Your task to perform on an android device: turn on the 12-hour format for clock Image 0: 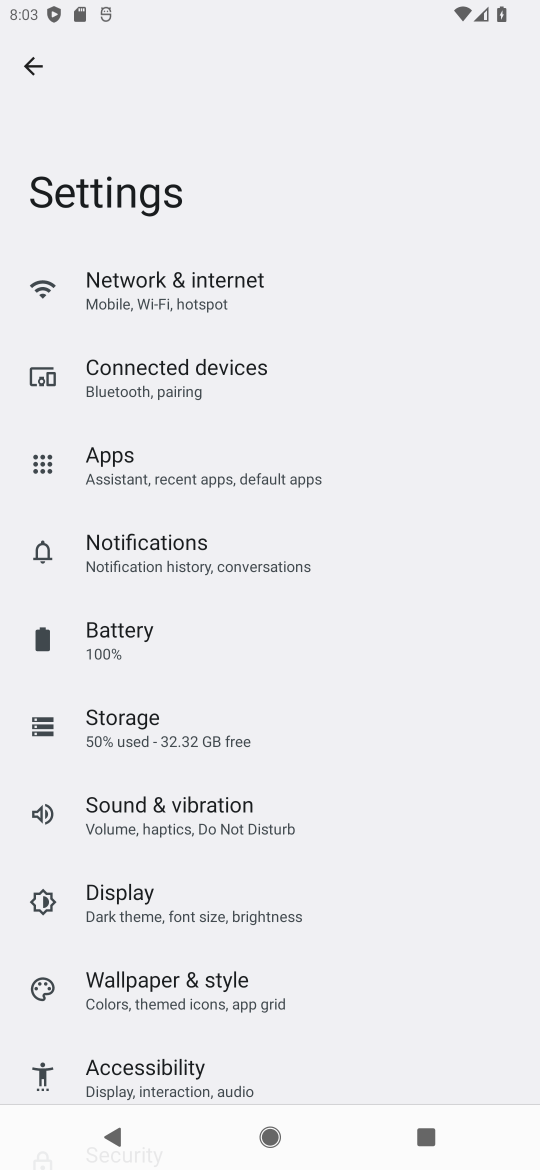
Step 0: press home button
Your task to perform on an android device: turn on the 12-hour format for clock Image 1: 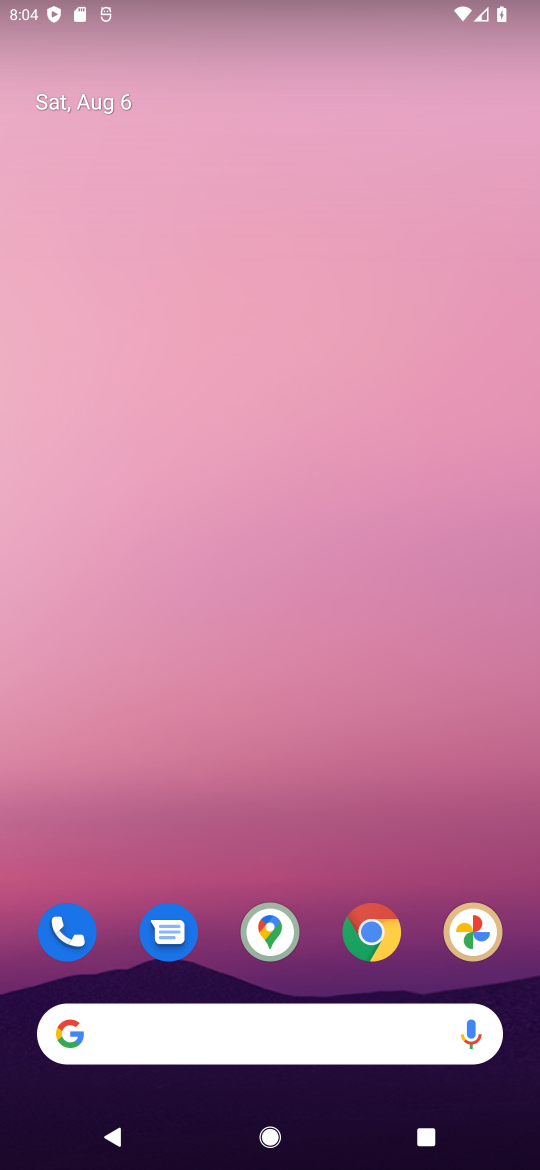
Step 1: drag from (335, 1029) to (412, 278)
Your task to perform on an android device: turn on the 12-hour format for clock Image 2: 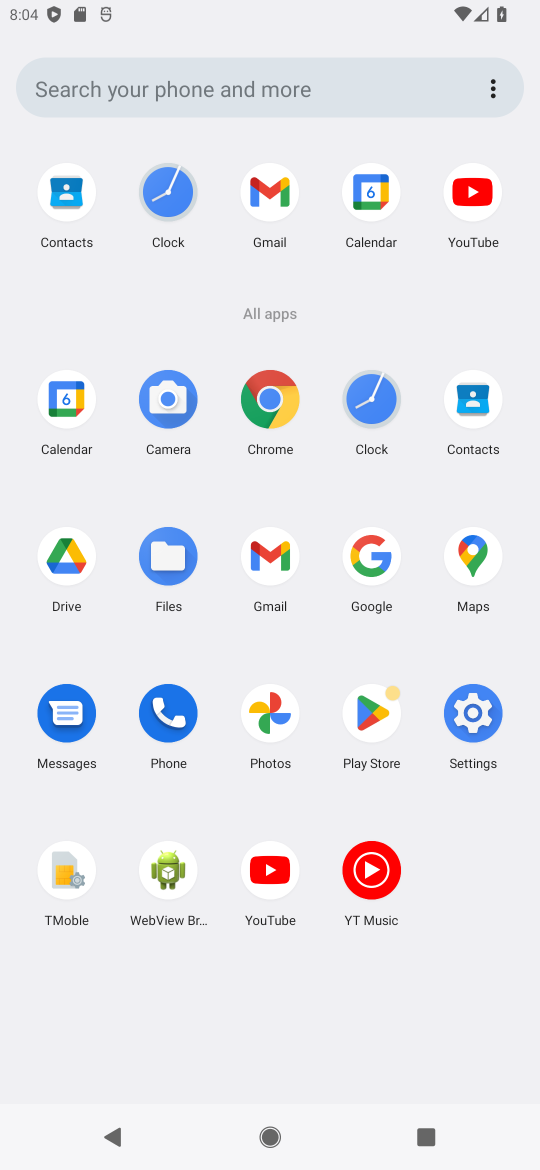
Step 2: click (168, 191)
Your task to perform on an android device: turn on the 12-hour format for clock Image 3: 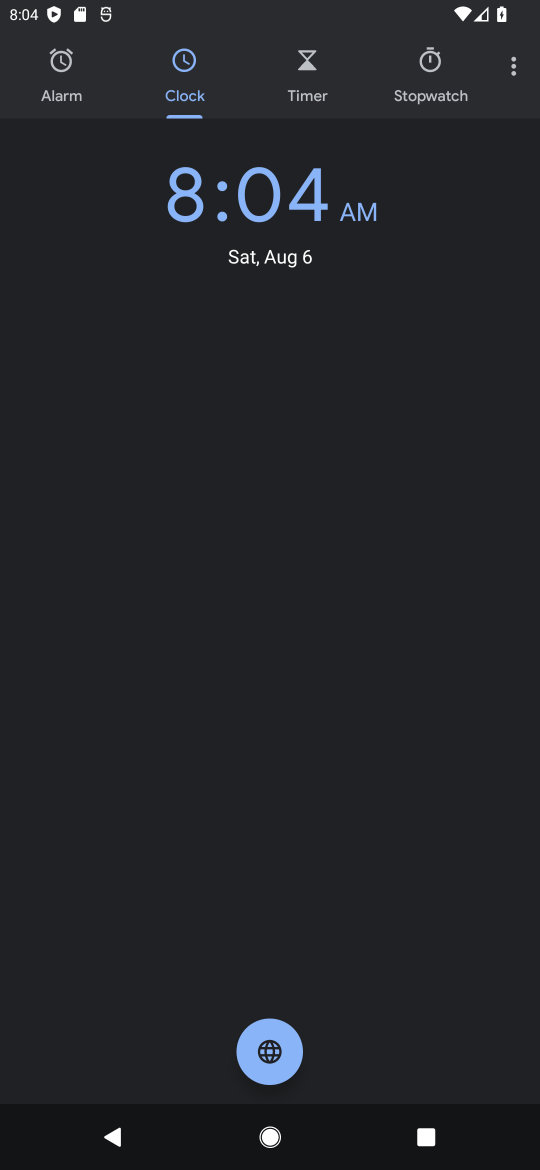
Step 3: click (515, 62)
Your task to perform on an android device: turn on the 12-hour format for clock Image 4: 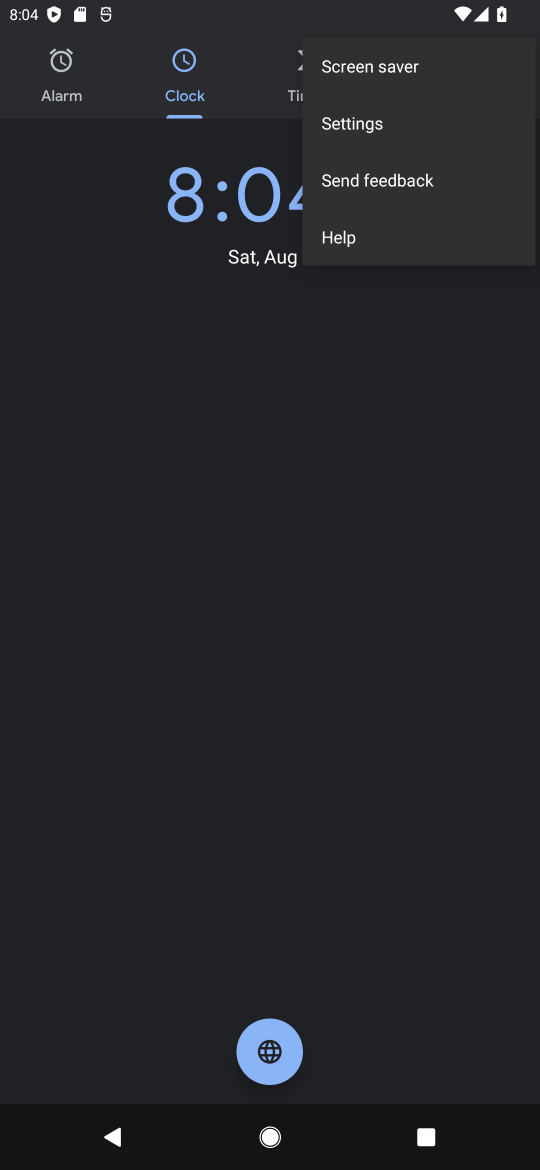
Step 4: click (384, 116)
Your task to perform on an android device: turn on the 12-hour format for clock Image 5: 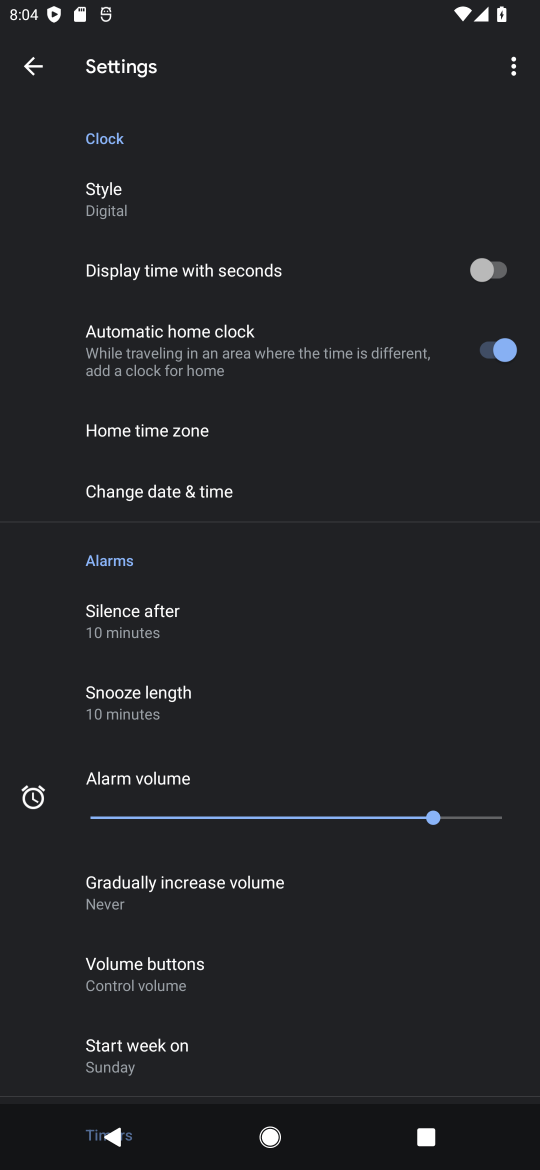
Step 5: drag from (284, 874) to (370, 541)
Your task to perform on an android device: turn on the 12-hour format for clock Image 6: 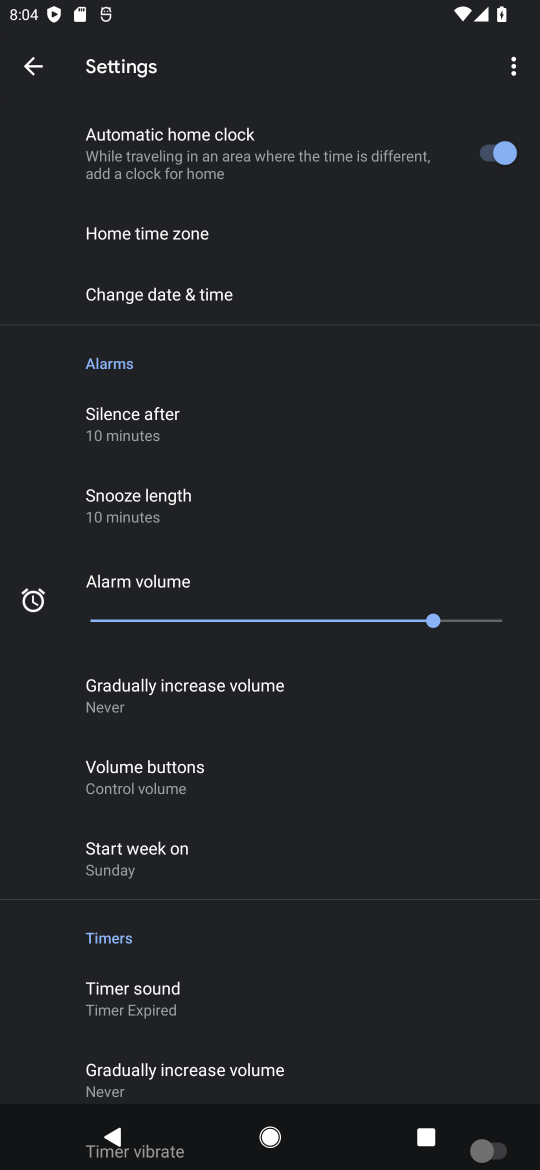
Step 6: click (179, 295)
Your task to perform on an android device: turn on the 12-hour format for clock Image 7: 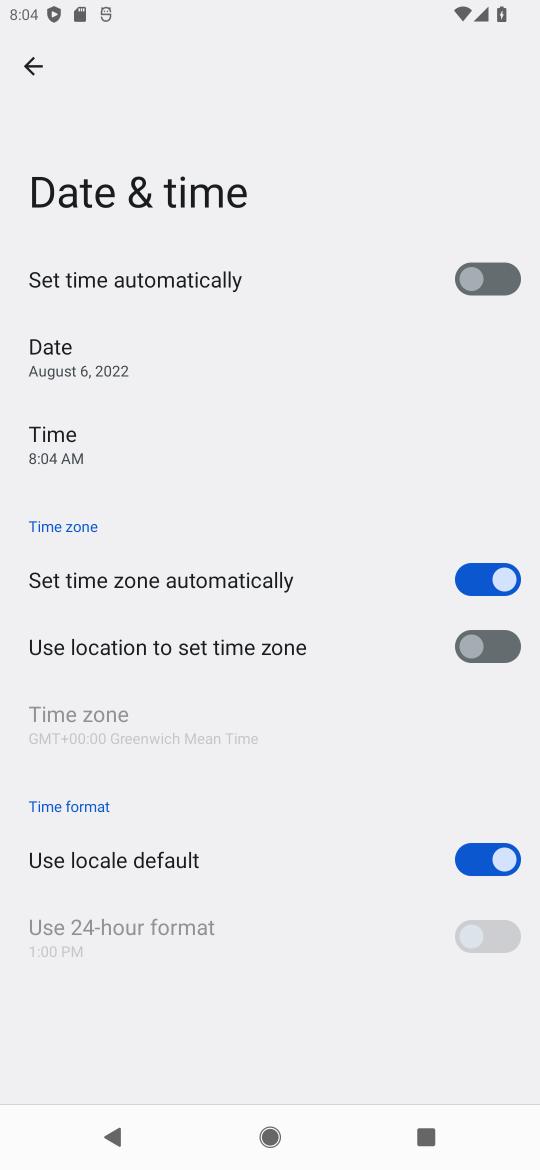
Step 7: task complete